Your task to perform on an android device: turn on the 12-hour format for clock Image 0: 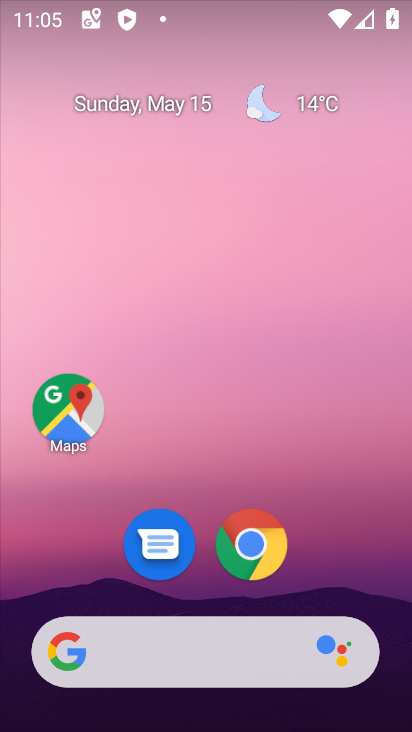
Step 0: drag from (149, 493) to (281, 18)
Your task to perform on an android device: turn on the 12-hour format for clock Image 1: 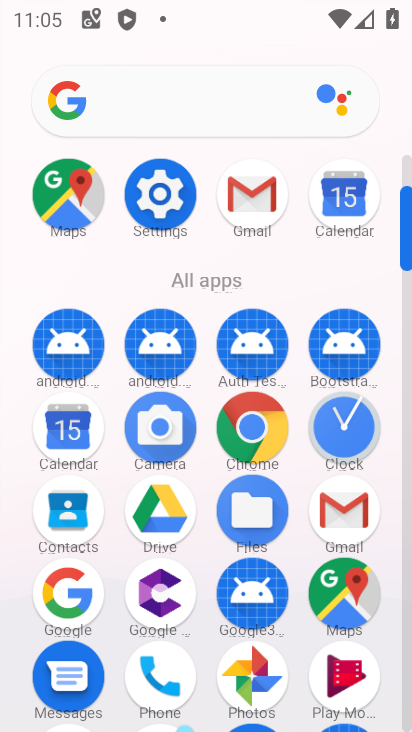
Step 1: click (335, 436)
Your task to perform on an android device: turn on the 12-hour format for clock Image 2: 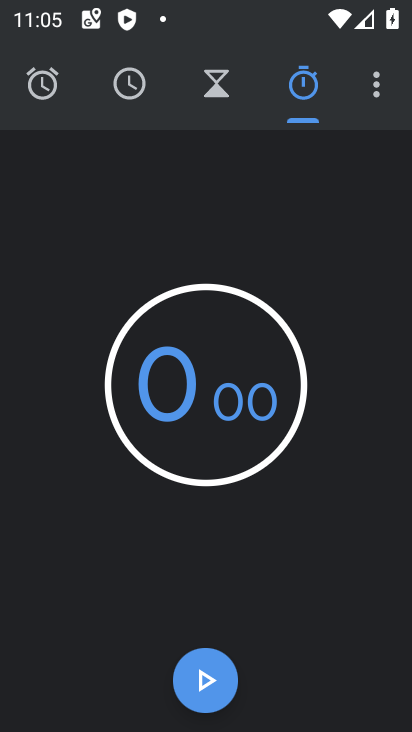
Step 2: click (381, 85)
Your task to perform on an android device: turn on the 12-hour format for clock Image 3: 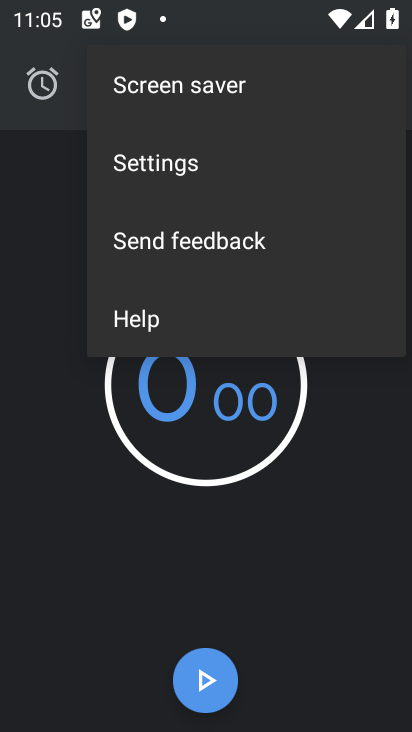
Step 3: click (336, 155)
Your task to perform on an android device: turn on the 12-hour format for clock Image 4: 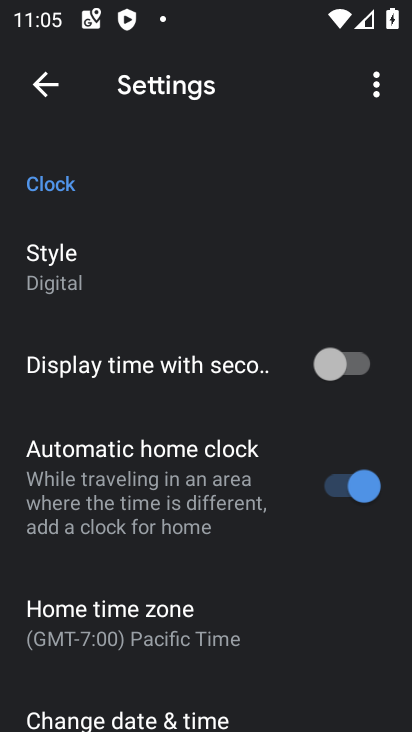
Step 4: drag from (225, 645) to (335, 327)
Your task to perform on an android device: turn on the 12-hour format for clock Image 5: 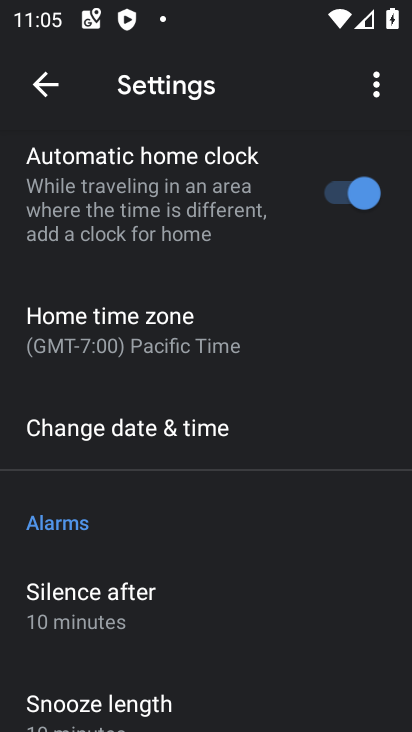
Step 5: click (219, 436)
Your task to perform on an android device: turn on the 12-hour format for clock Image 6: 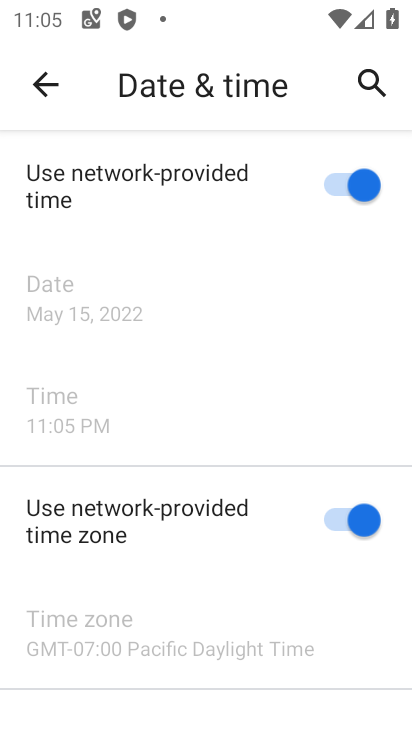
Step 6: task complete